Your task to perform on an android device: Open internet settings Image 0: 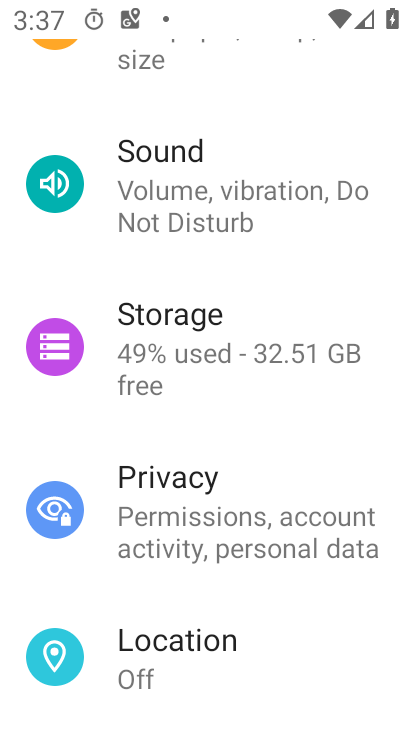
Step 0: drag from (348, 102) to (276, 548)
Your task to perform on an android device: Open internet settings Image 1: 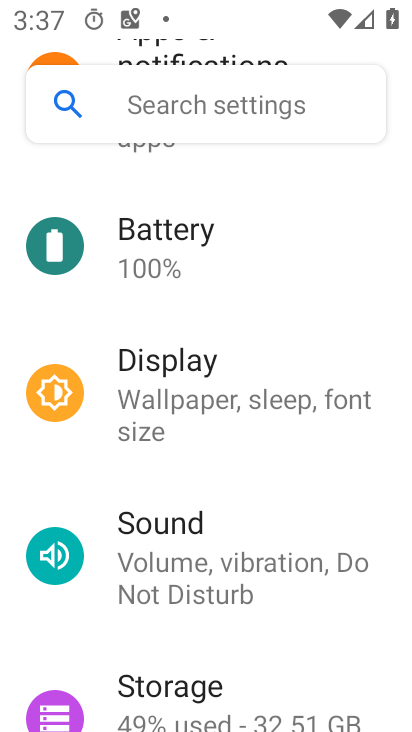
Step 1: drag from (338, 243) to (305, 727)
Your task to perform on an android device: Open internet settings Image 2: 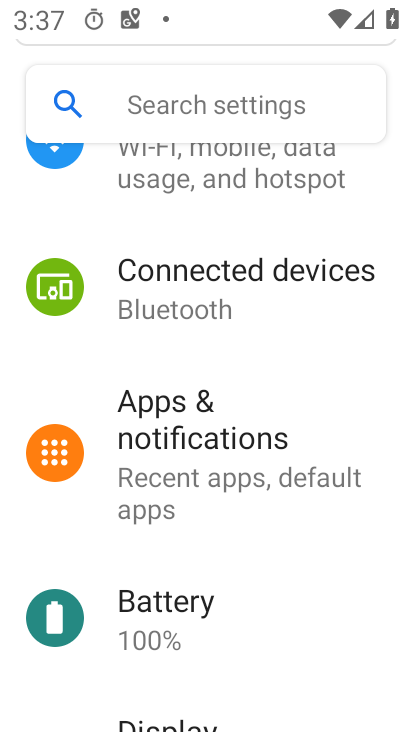
Step 2: drag from (293, 219) to (255, 661)
Your task to perform on an android device: Open internet settings Image 3: 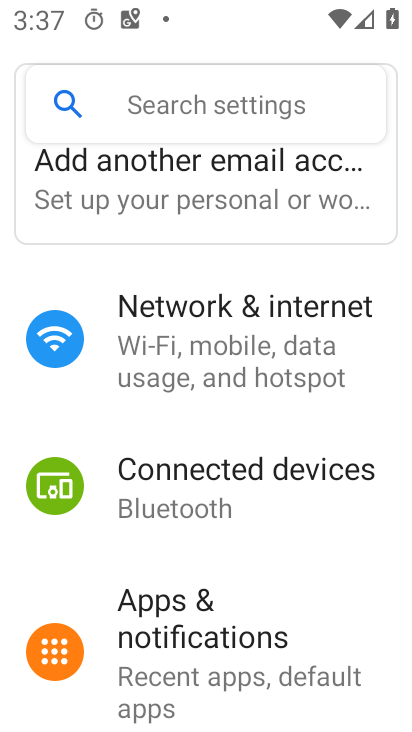
Step 3: click (256, 345)
Your task to perform on an android device: Open internet settings Image 4: 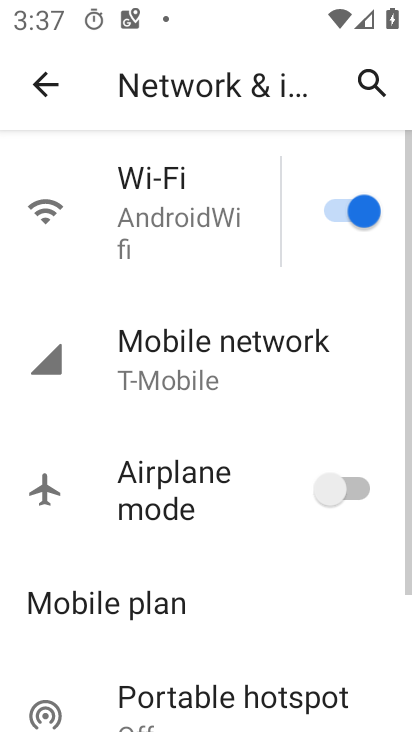
Step 4: task complete